Your task to perform on an android device: turn on the 12-hour format for clock Image 0: 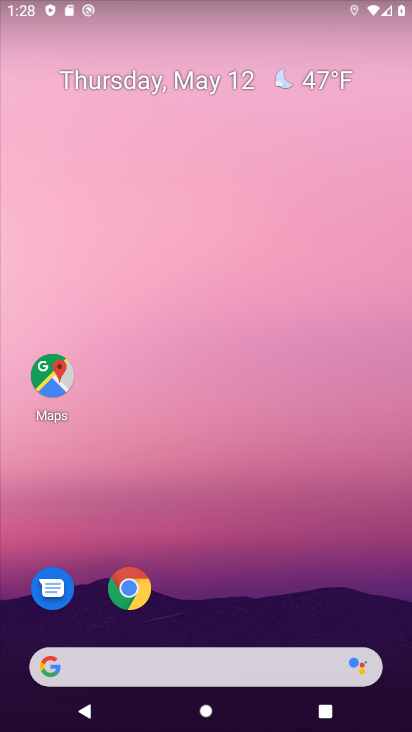
Step 0: drag from (400, 648) to (347, 255)
Your task to perform on an android device: turn on the 12-hour format for clock Image 1: 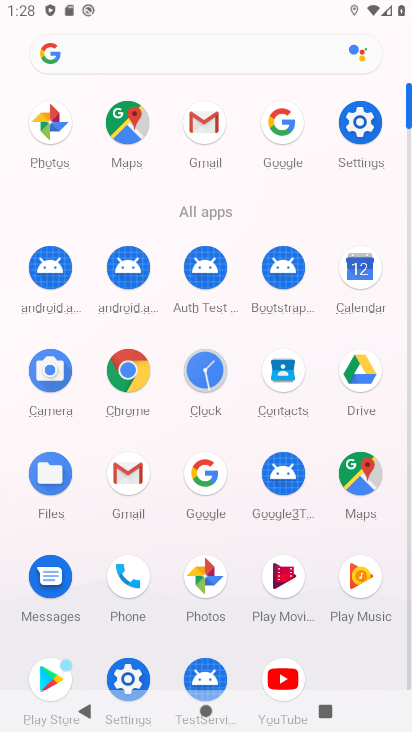
Step 1: click (198, 376)
Your task to perform on an android device: turn on the 12-hour format for clock Image 2: 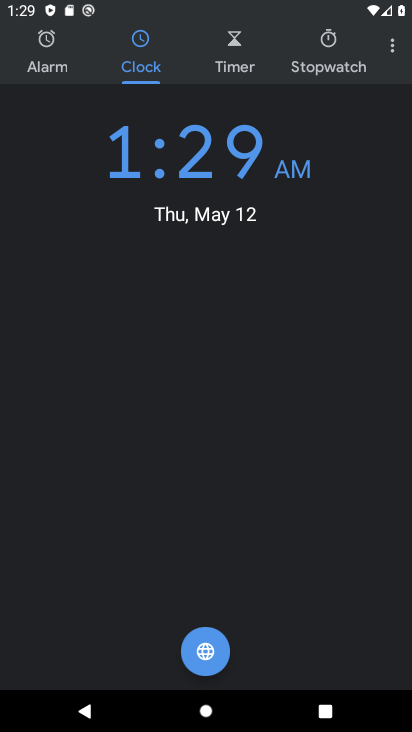
Step 2: click (385, 37)
Your task to perform on an android device: turn on the 12-hour format for clock Image 3: 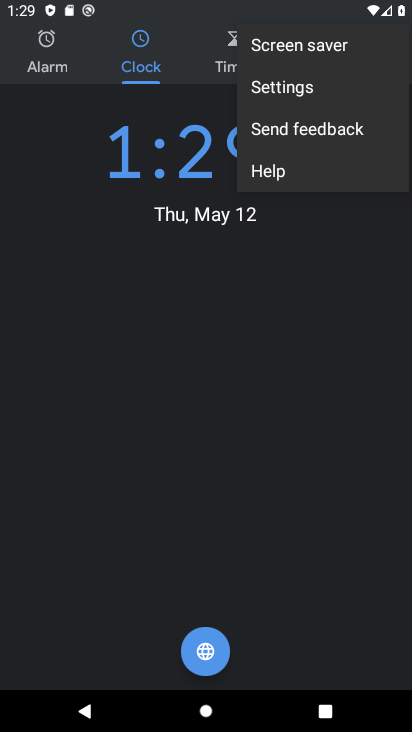
Step 3: click (321, 103)
Your task to perform on an android device: turn on the 12-hour format for clock Image 4: 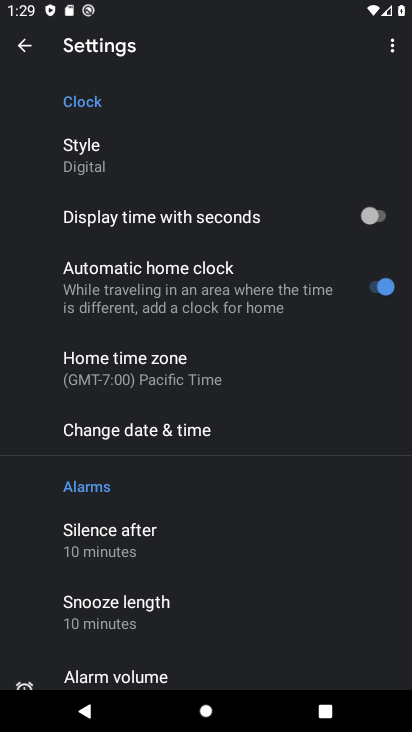
Step 4: click (205, 429)
Your task to perform on an android device: turn on the 12-hour format for clock Image 5: 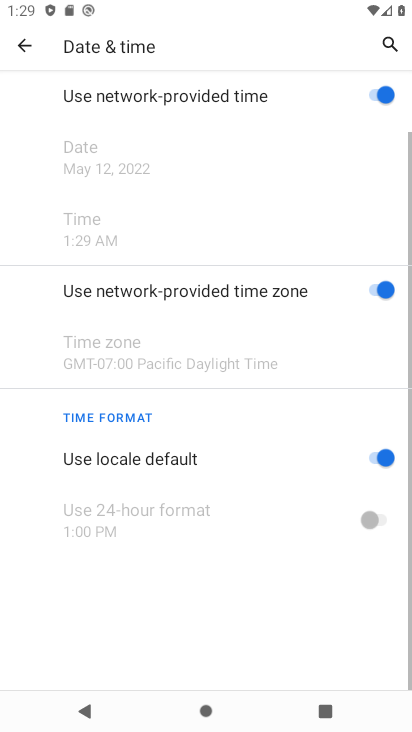
Step 5: task complete